Your task to perform on an android device: find which apps use the phone's location Image 0: 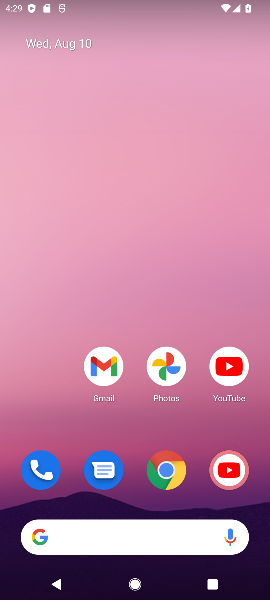
Step 0: press home button
Your task to perform on an android device: find which apps use the phone's location Image 1: 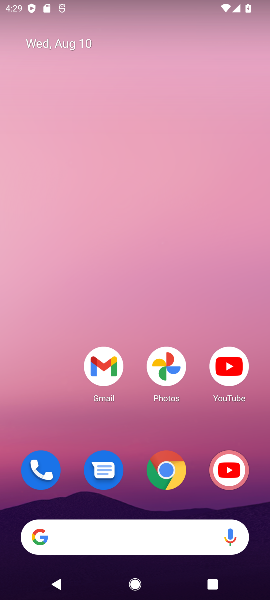
Step 1: drag from (58, 411) to (3, 485)
Your task to perform on an android device: find which apps use the phone's location Image 2: 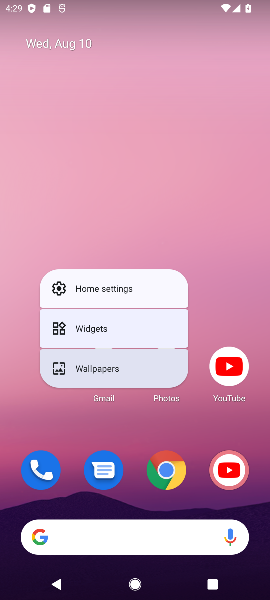
Step 2: click (199, 127)
Your task to perform on an android device: find which apps use the phone's location Image 3: 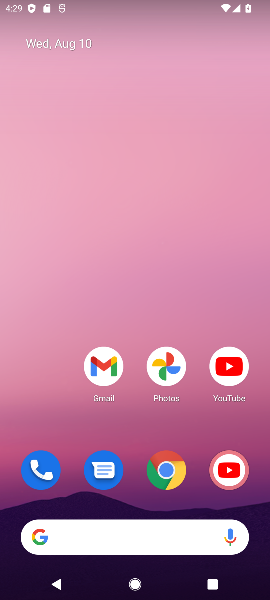
Step 3: drag from (220, 433) to (215, 25)
Your task to perform on an android device: find which apps use the phone's location Image 4: 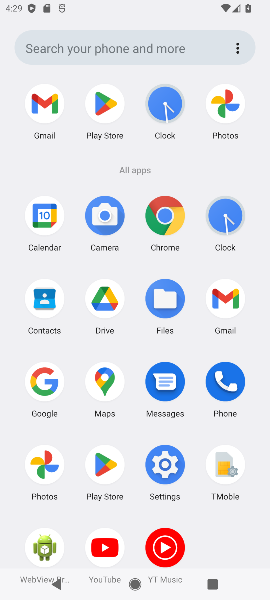
Step 4: click (224, 386)
Your task to perform on an android device: find which apps use the phone's location Image 5: 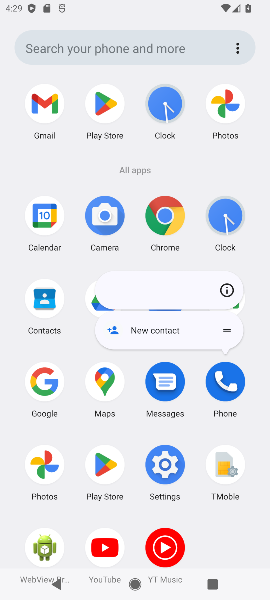
Step 5: click (224, 296)
Your task to perform on an android device: find which apps use the phone's location Image 6: 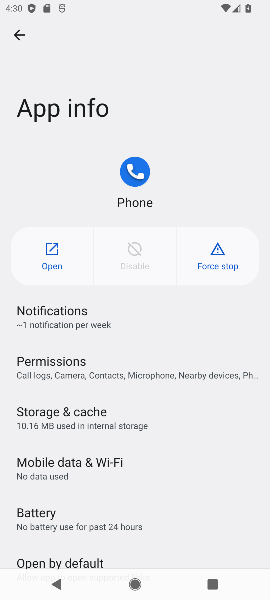
Step 6: click (72, 369)
Your task to perform on an android device: find which apps use the phone's location Image 7: 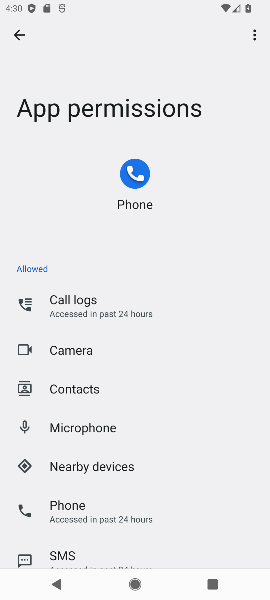
Step 7: drag from (145, 474) to (124, 170)
Your task to perform on an android device: find which apps use the phone's location Image 8: 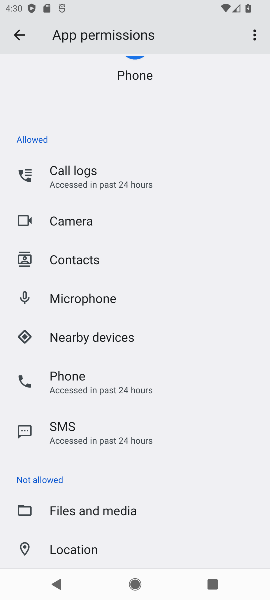
Step 8: click (56, 538)
Your task to perform on an android device: find which apps use the phone's location Image 9: 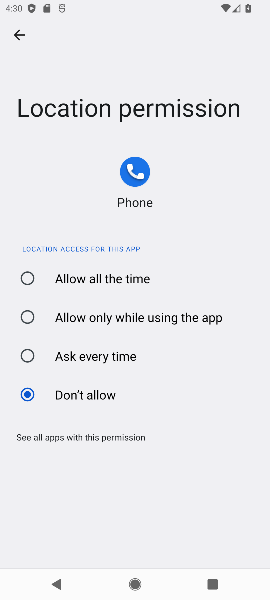
Step 9: click (75, 443)
Your task to perform on an android device: find which apps use the phone's location Image 10: 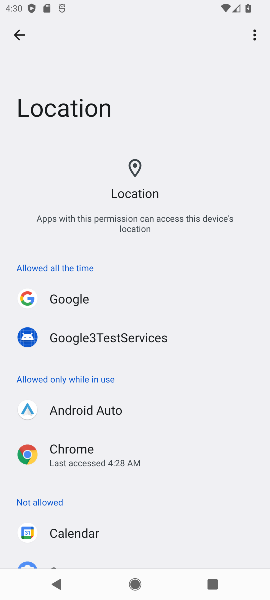
Step 10: task complete